Your task to perform on an android device: Is it going to rain today? Image 0: 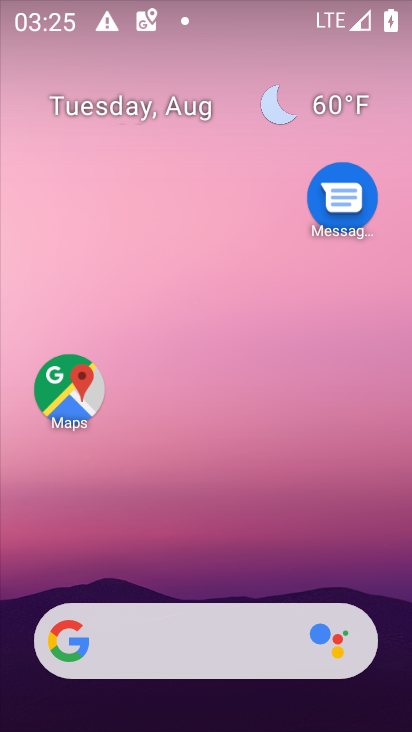
Step 0: click (213, 656)
Your task to perform on an android device: Is it going to rain today? Image 1: 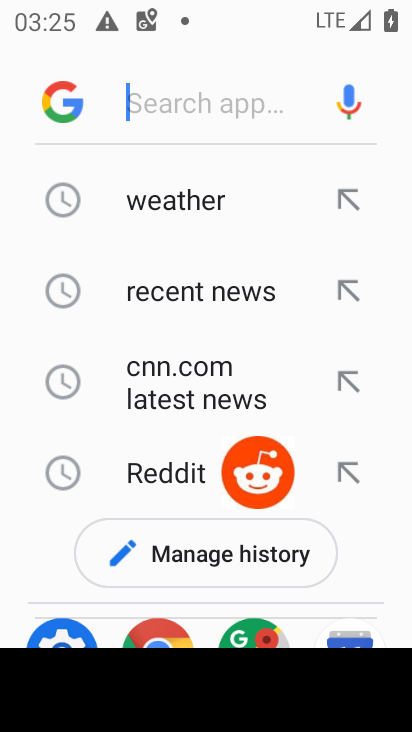
Step 1: click (147, 225)
Your task to perform on an android device: Is it going to rain today? Image 2: 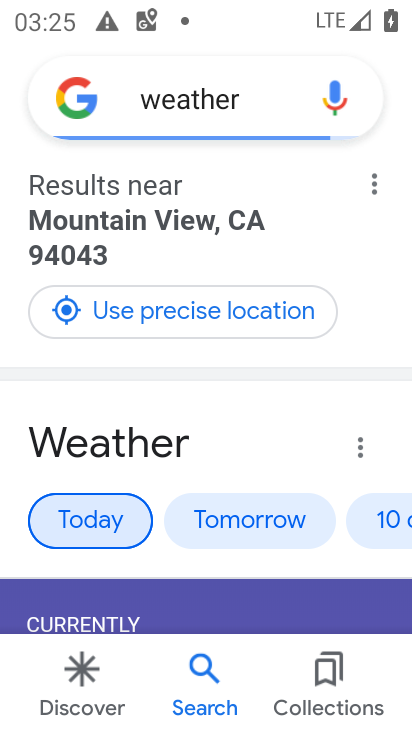
Step 2: task complete